Your task to perform on an android device: Show the shopping cart on newegg.com. Add "razer blade" to the cart on newegg.com Image 0: 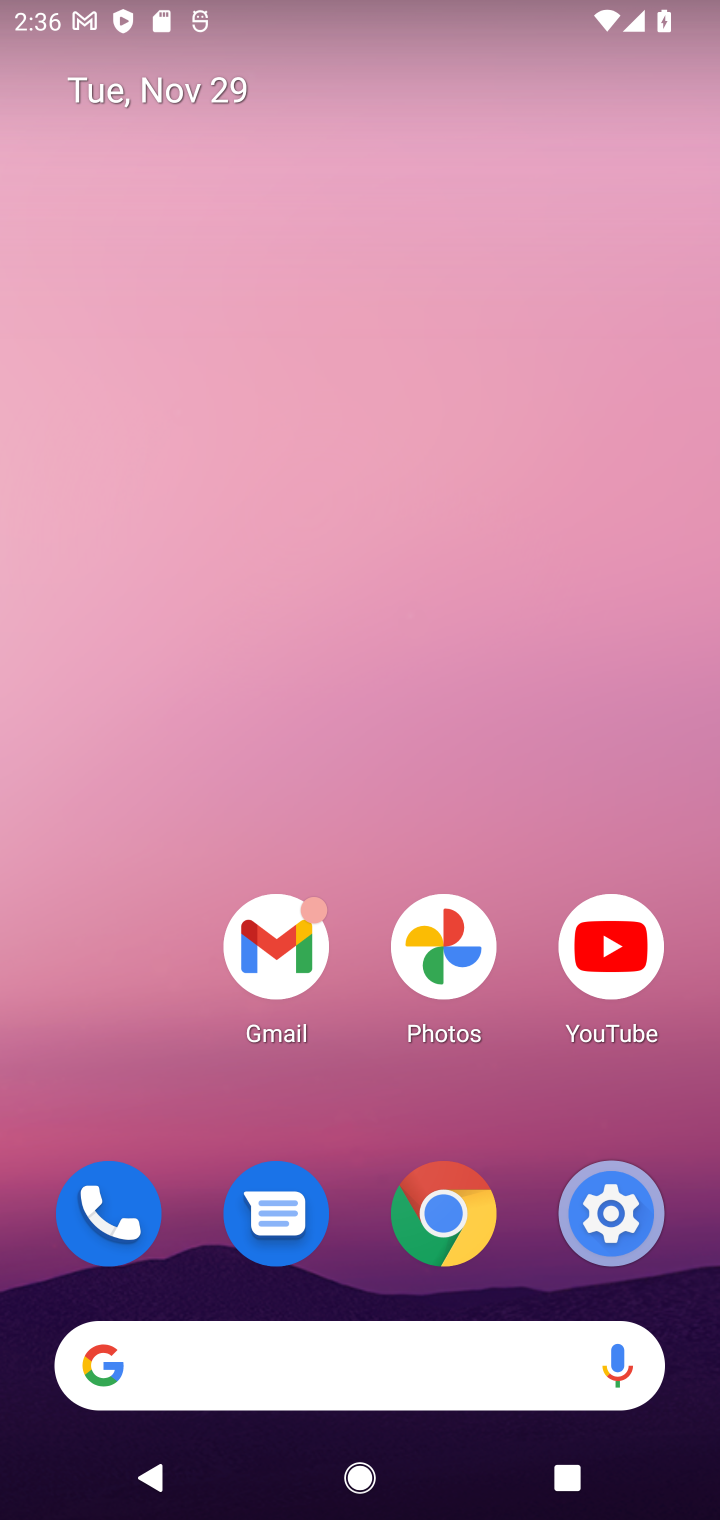
Step 0: click (262, 1362)
Your task to perform on an android device: Show the shopping cart on newegg.com. Add "razer blade" to the cart on newegg.com Image 1: 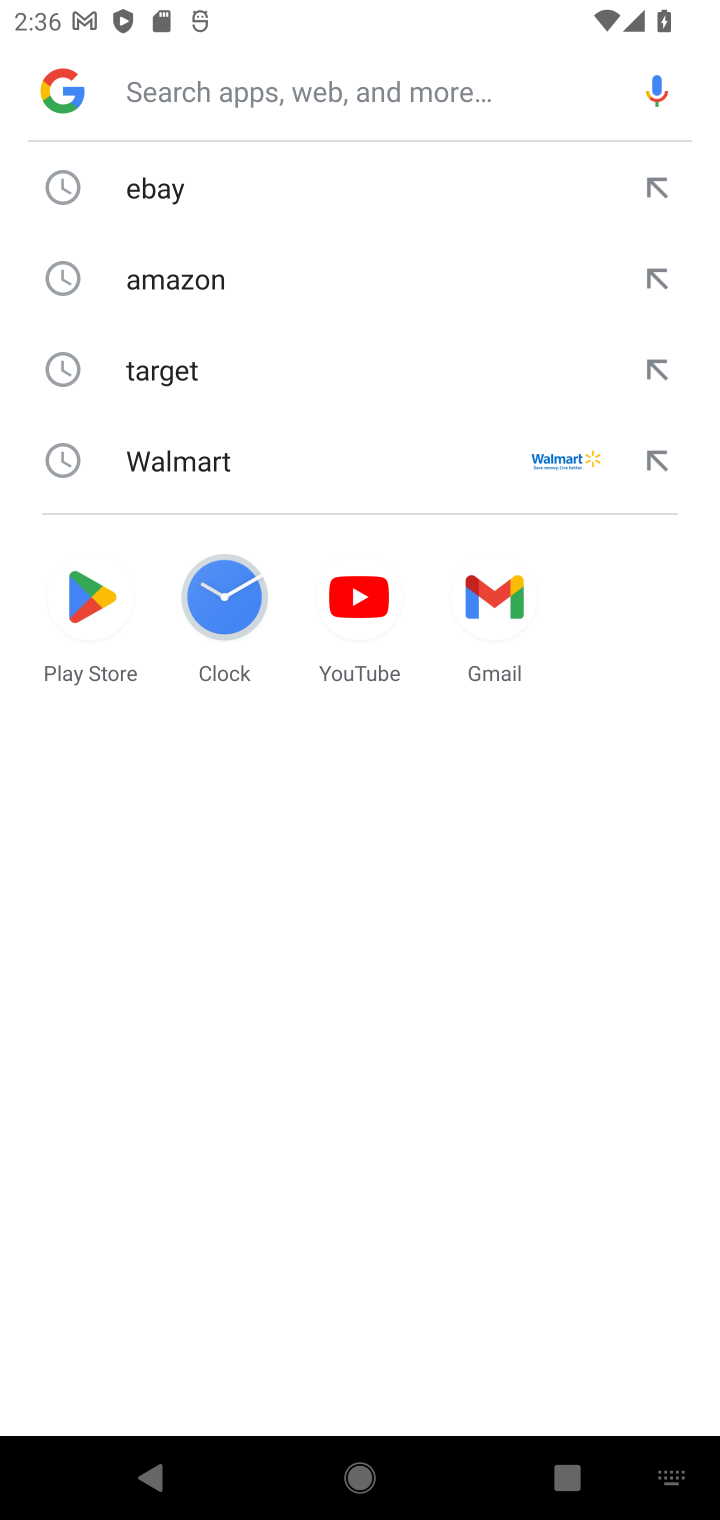
Step 1: press home button
Your task to perform on an android device: Show the shopping cart on newegg.com. Add "razer blade" to the cart on newegg.com Image 2: 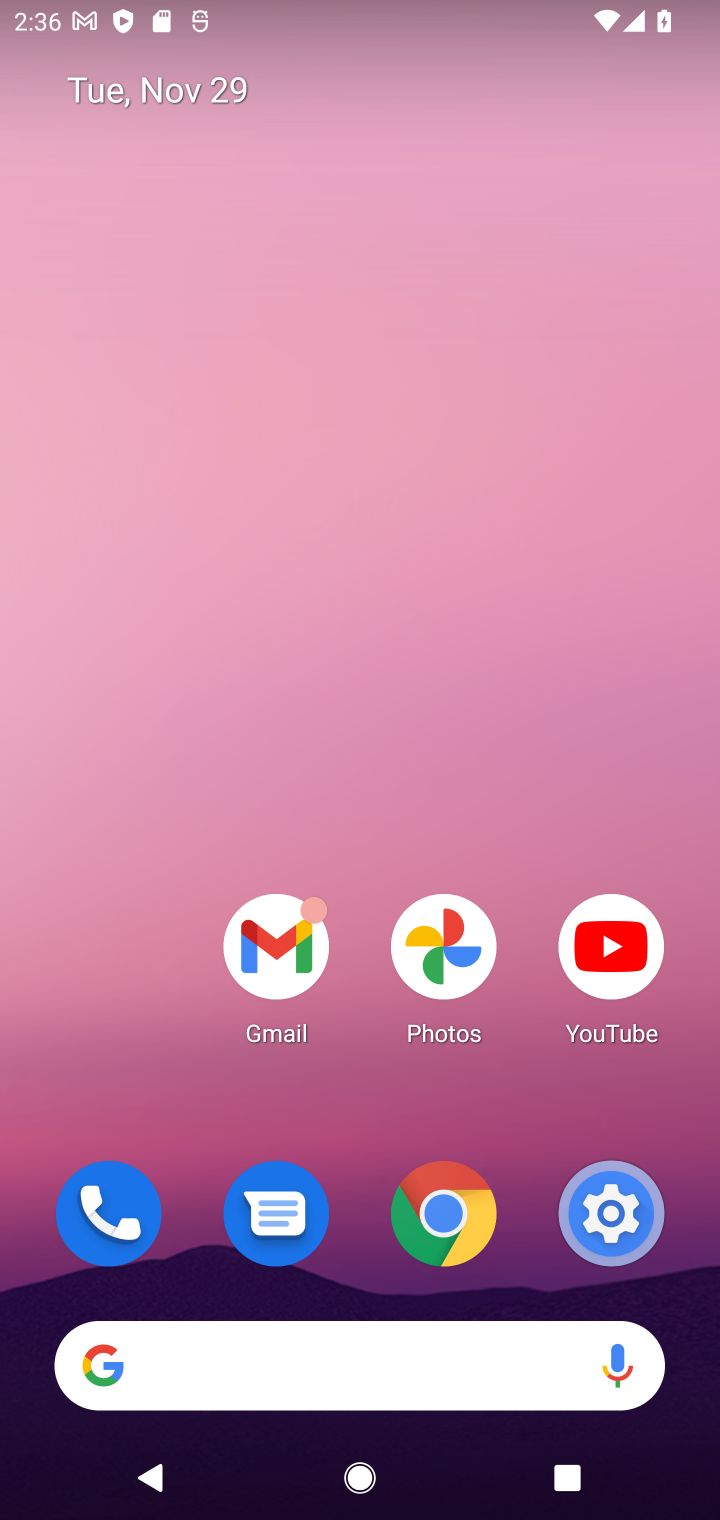
Step 2: drag from (341, 1289) to (336, 757)
Your task to perform on an android device: Show the shopping cart on newegg.com. Add "razer blade" to the cart on newegg.com Image 3: 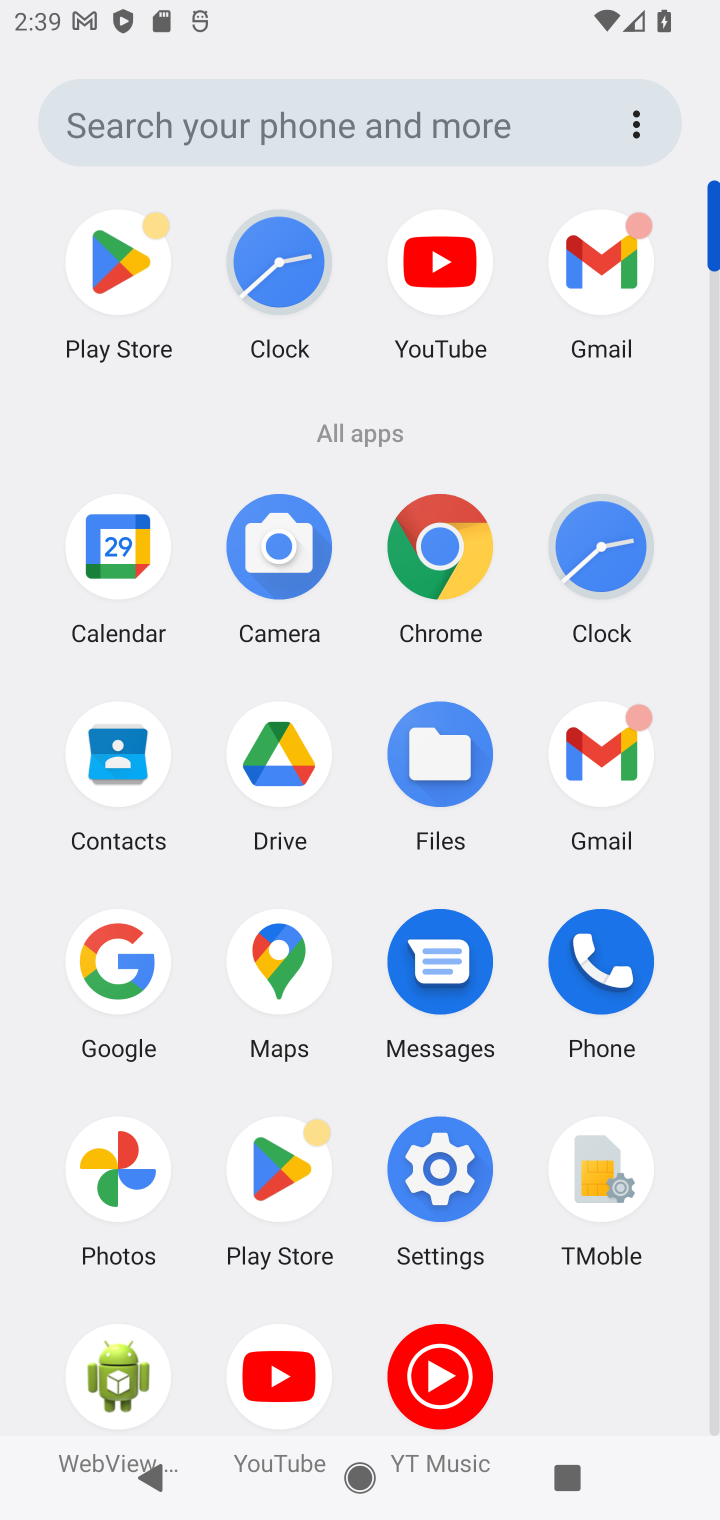
Step 3: click (91, 952)
Your task to perform on an android device: Show the shopping cart on newegg.com. Add "razer blade" to the cart on newegg.com Image 4: 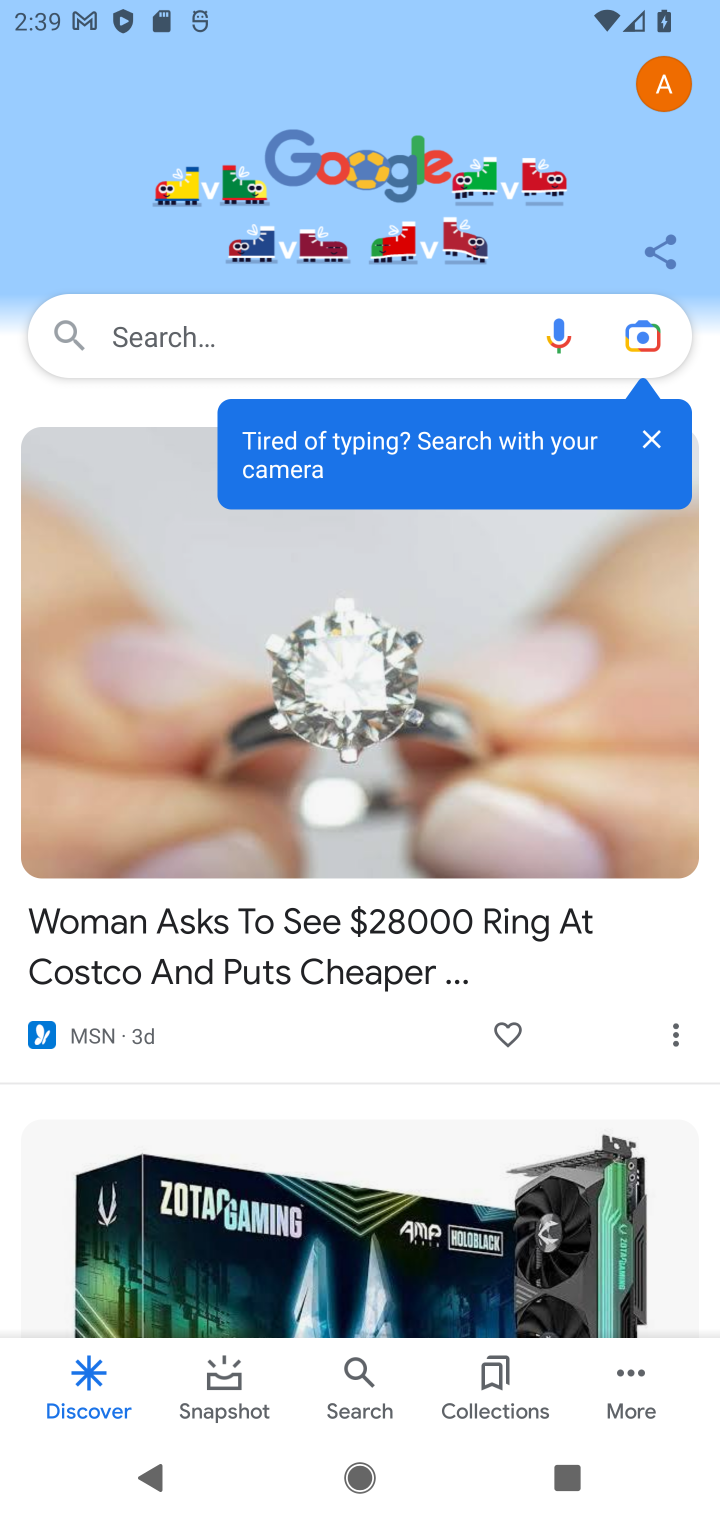
Step 4: click (319, 346)
Your task to perform on an android device: Show the shopping cart on newegg.com. Add "razer blade" to the cart on newegg.com Image 5: 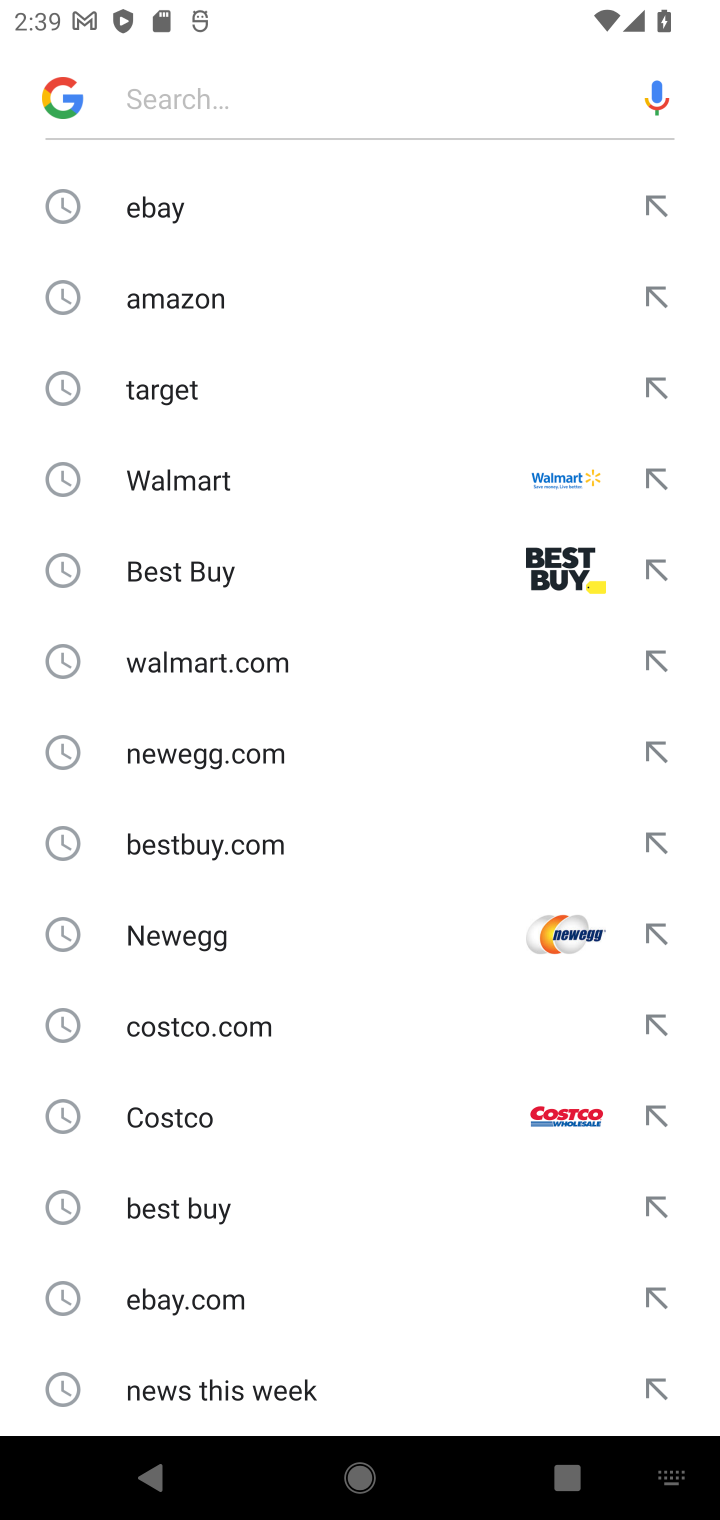
Step 5: type "newegg.com"
Your task to perform on an android device: Show the shopping cart on newegg.com. Add "razer blade" to the cart on newegg.com Image 6: 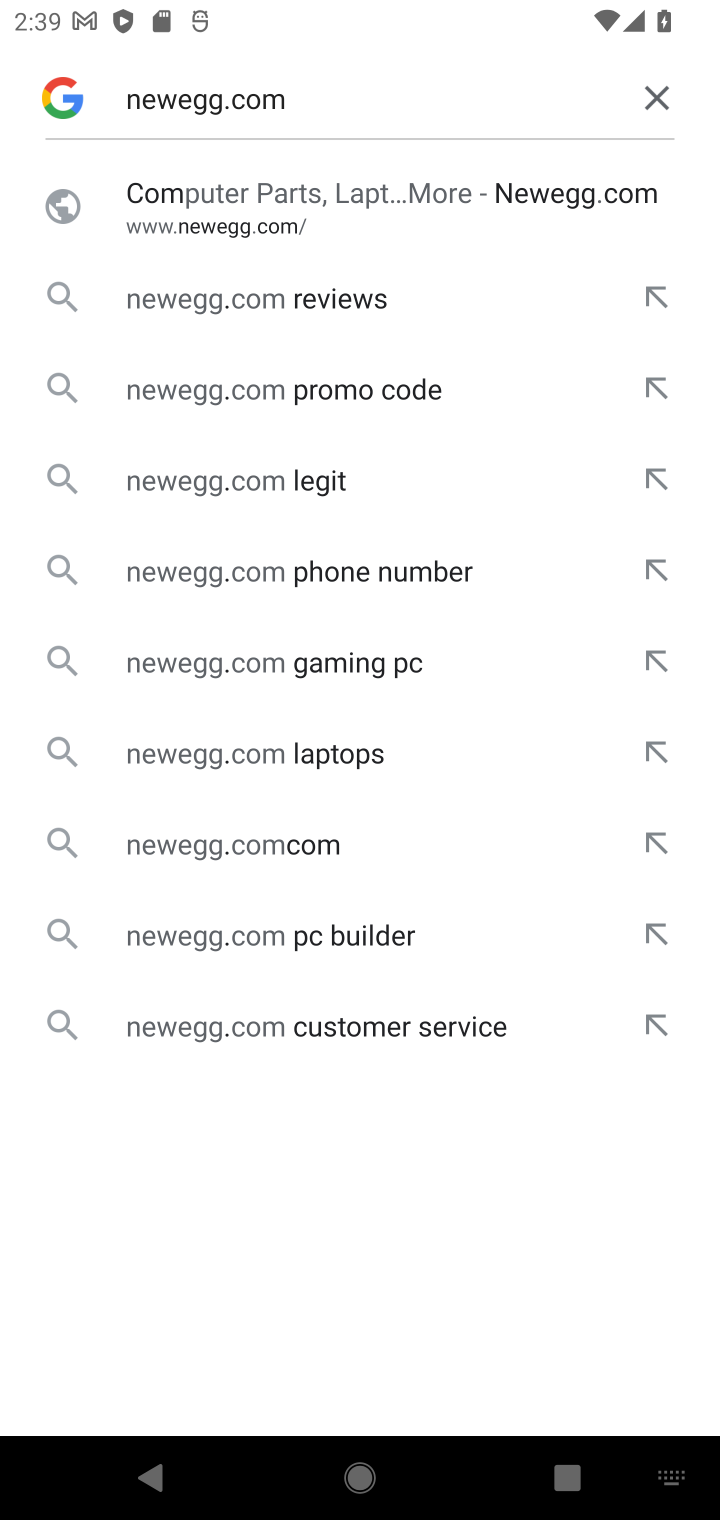
Step 6: click (390, 200)
Your task to perform on an android device: Show the shopping cart on newegg.com. Add "razer blade" to the cart on newegg.com Image 7: 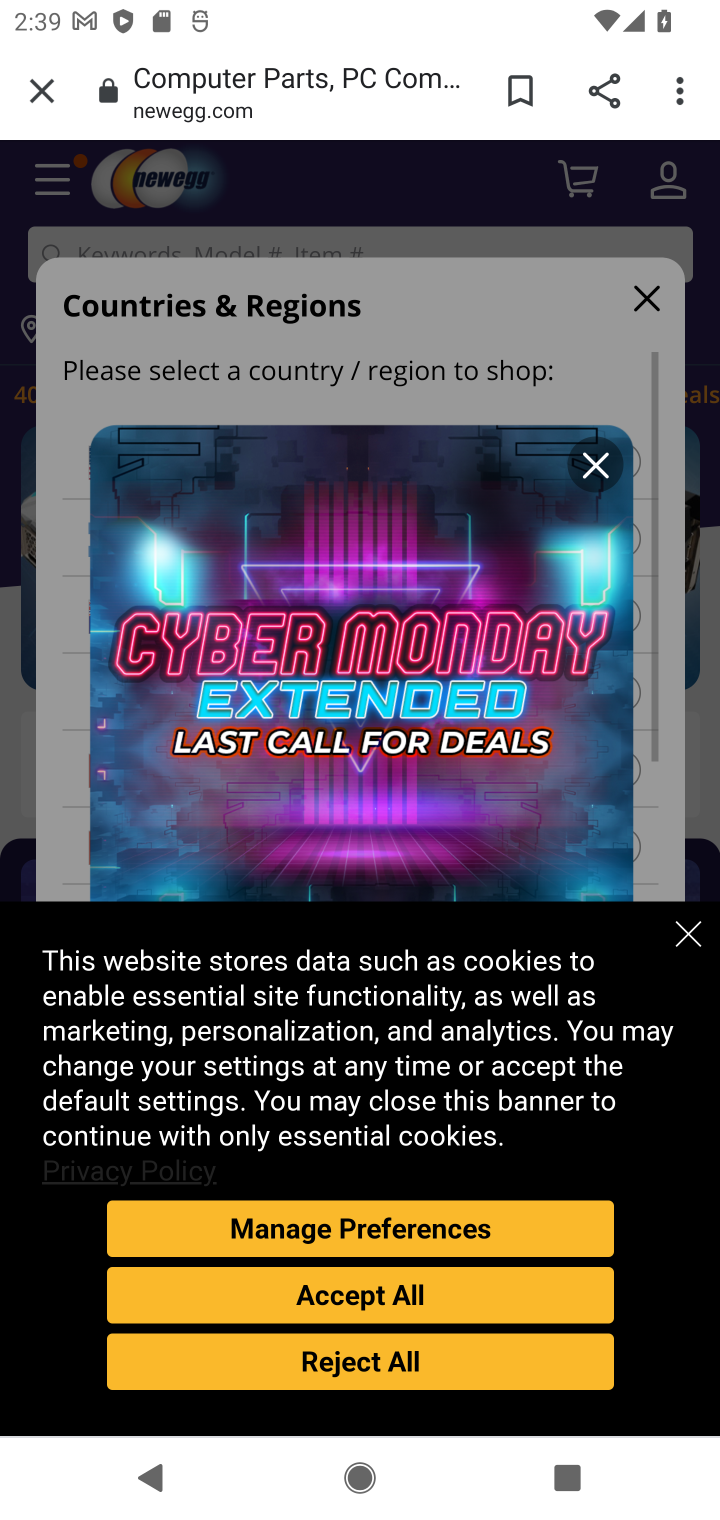
Step 7: click (672, 931)
Your task to perform on an android device: Show the shopping cart on newegg.com. Add "razer blade" to the cart on newegg.com Image 8: 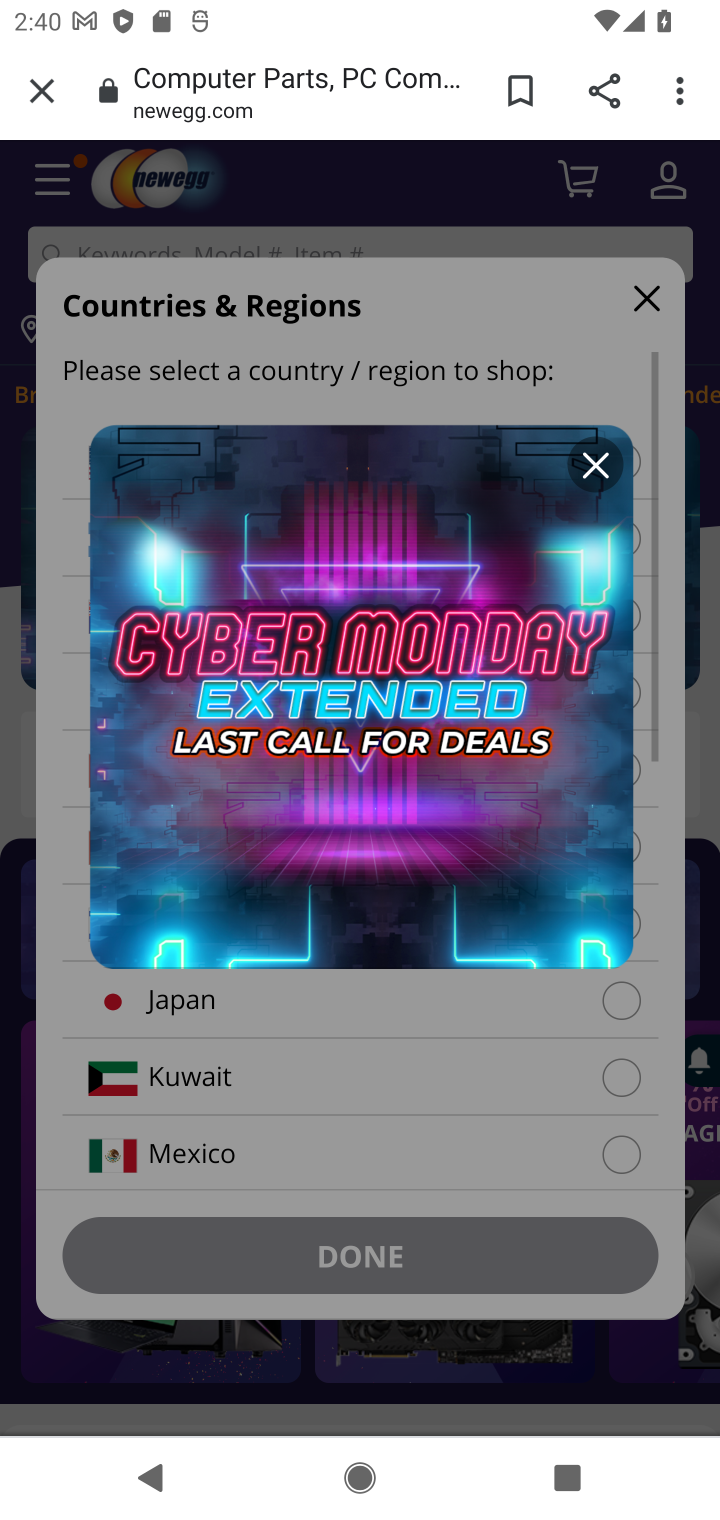
Step 8: click (596, 464)
Your task to perform on an android device: Show the shopping cart on newegg.com. Add "razer blade" to the cart on newegg.com Image 9: 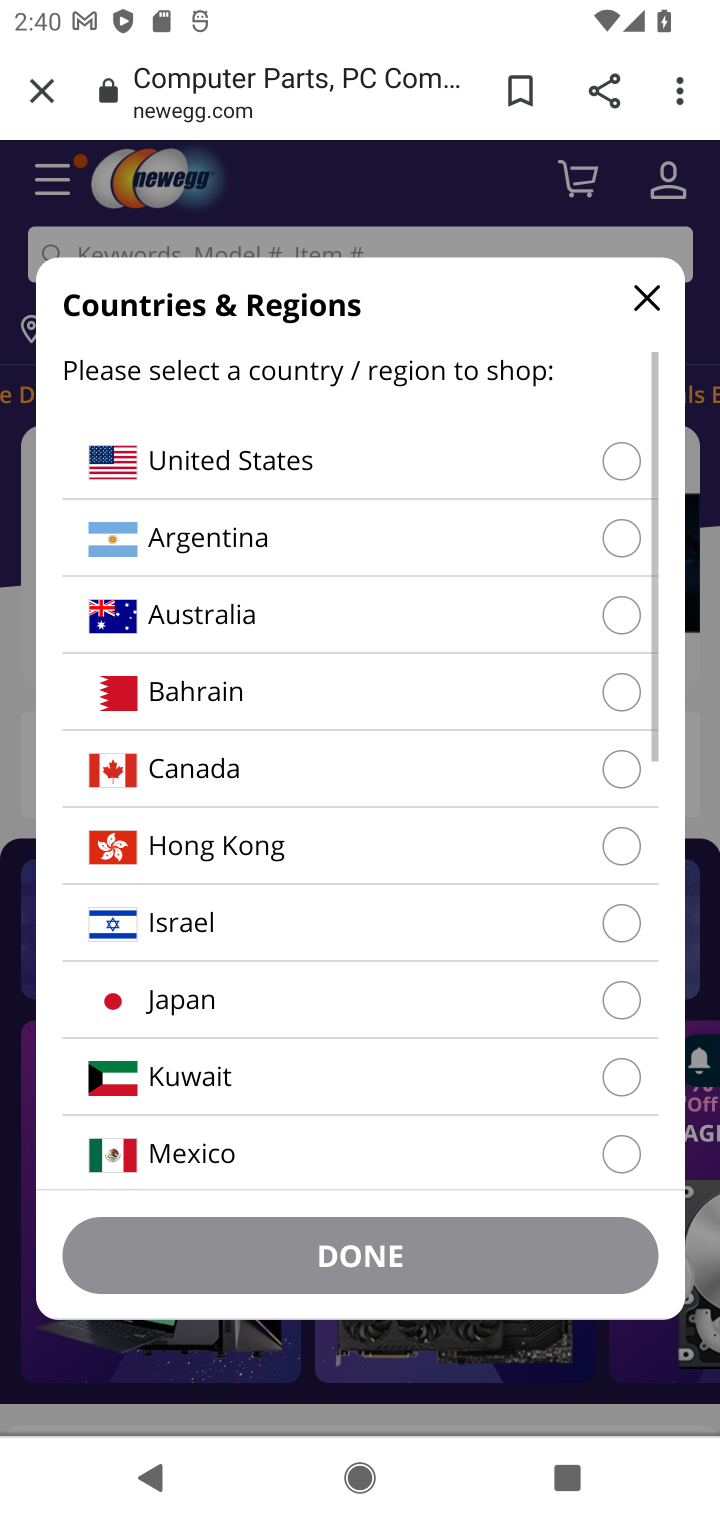
Step 9: click (627, 464)
Your task to perform on an android device: Show the shopping cart on newegg.com. Add "razer blade" to the cart on newegg.com Image 10: 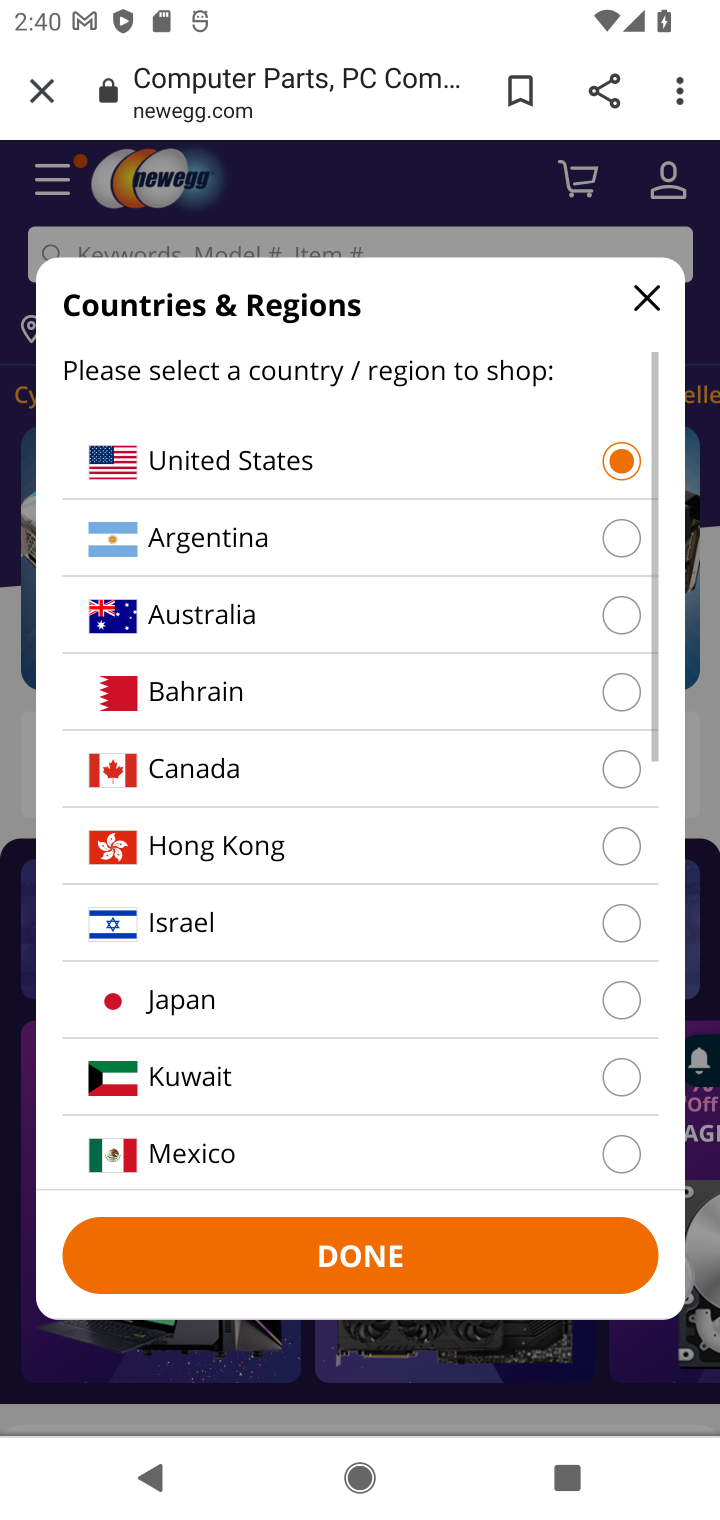
Step 10: click (386, 1261)
Your task to perform on an android device: Show the shopping cart on newegg.com. Add "razer blade" to the cart on newegg.com Image 11: 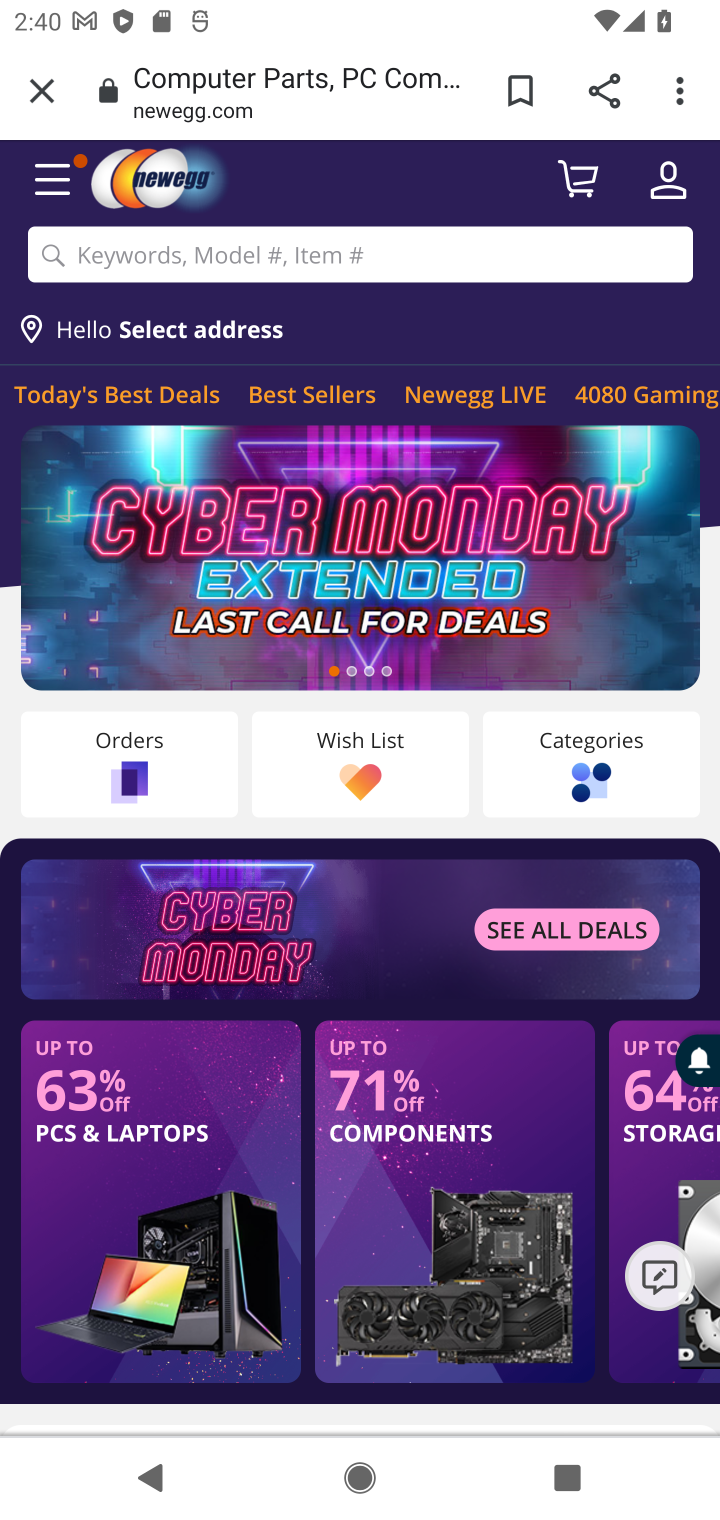
Step 11: click (344, 1122)
Your task to perform on an android device: Show the shopping cart on newegg.com. Add "razer blade" to the cart on newegg.com Image 12: 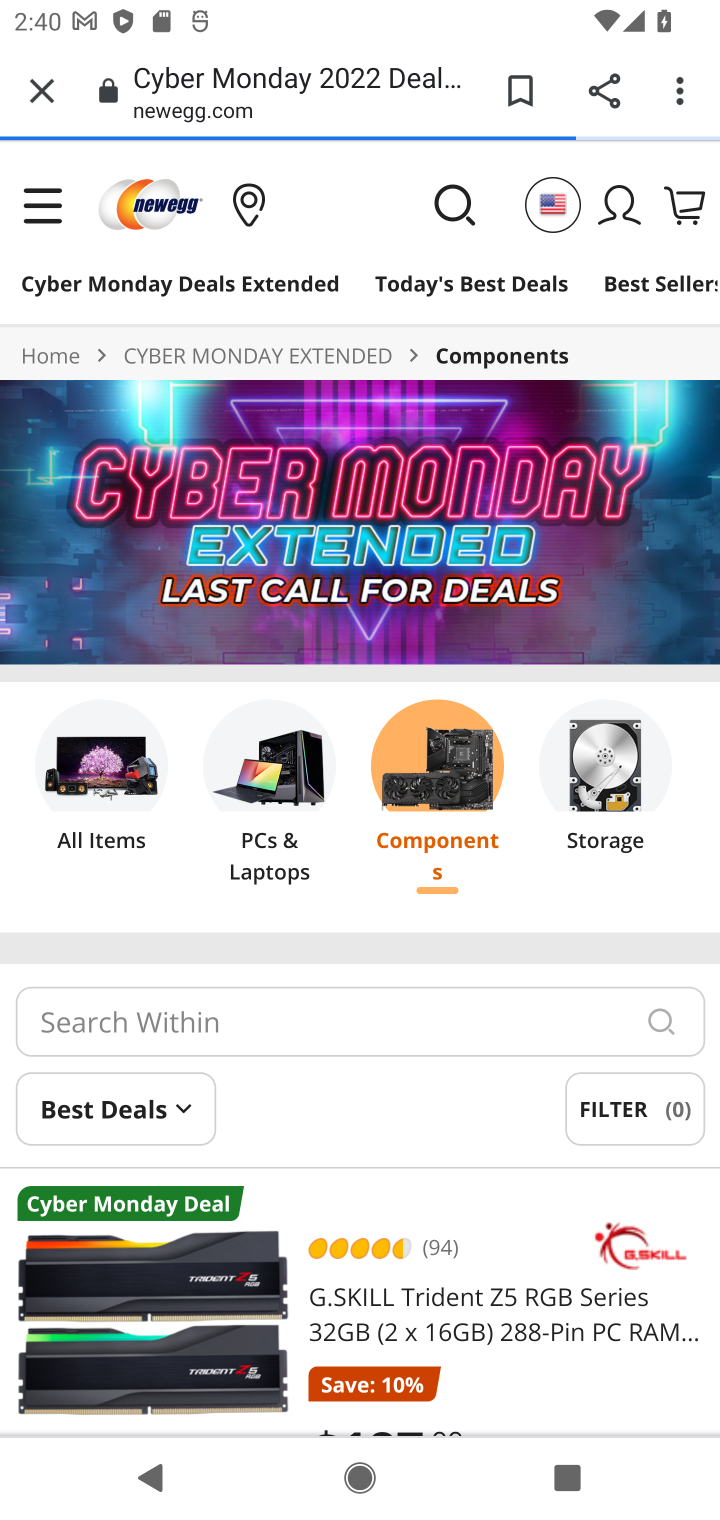
Step 12: drag from (245, 1260) to (364, 529)
Your task to perform on an android device: Show the shopping cart on newegg.com. Add "razer blade" to the cart on newegg.com Image 13: 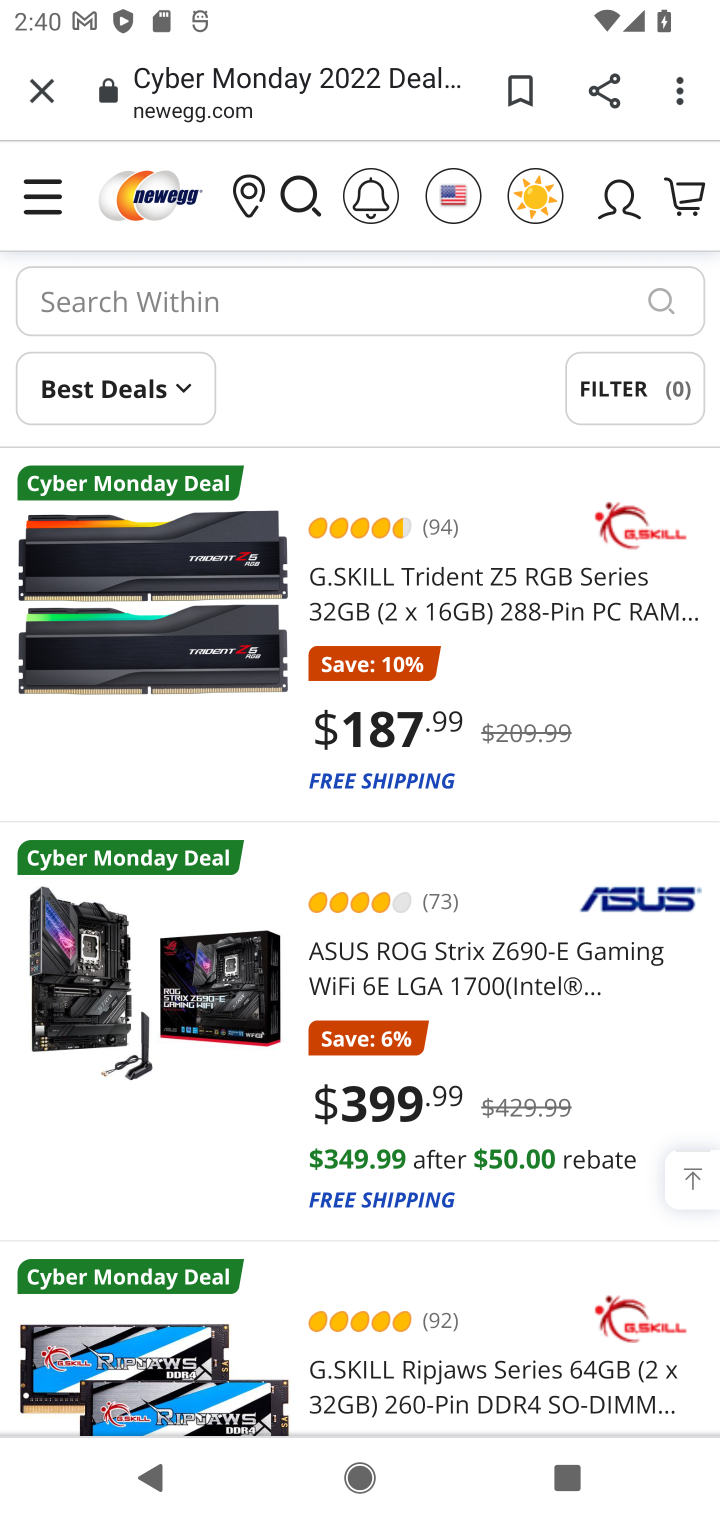
Step 13: drag from (329, 613) to (425, 1034)
Your task to perform on an android device: Show the shopping cart on newegg.com. Add "razer blade" to the cart on newegg.com Image 14: 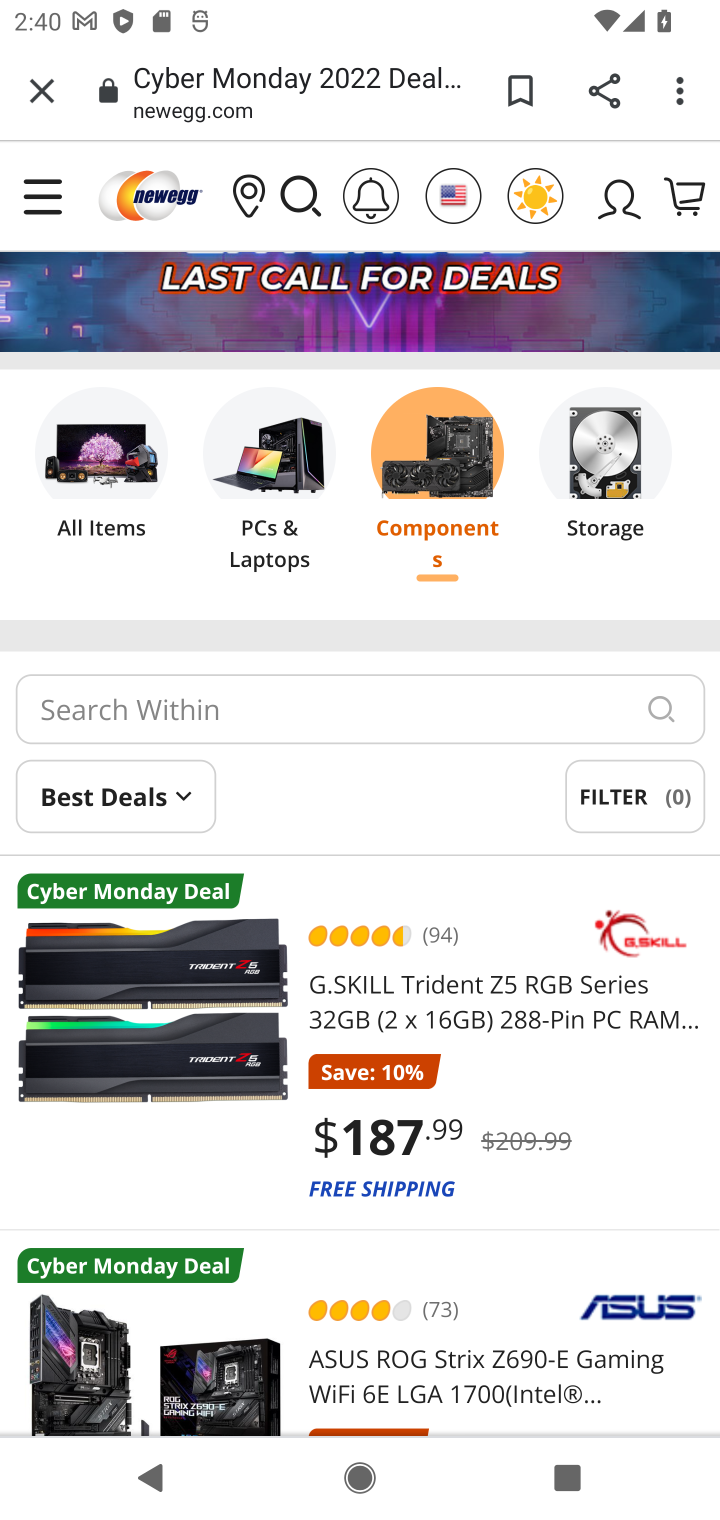
Step 14: click (506, 1012)
Your task to perform on an android device: Show the shopping cart on newegg.com. Add "razer blade" to the cart on newegg.com Image 15: 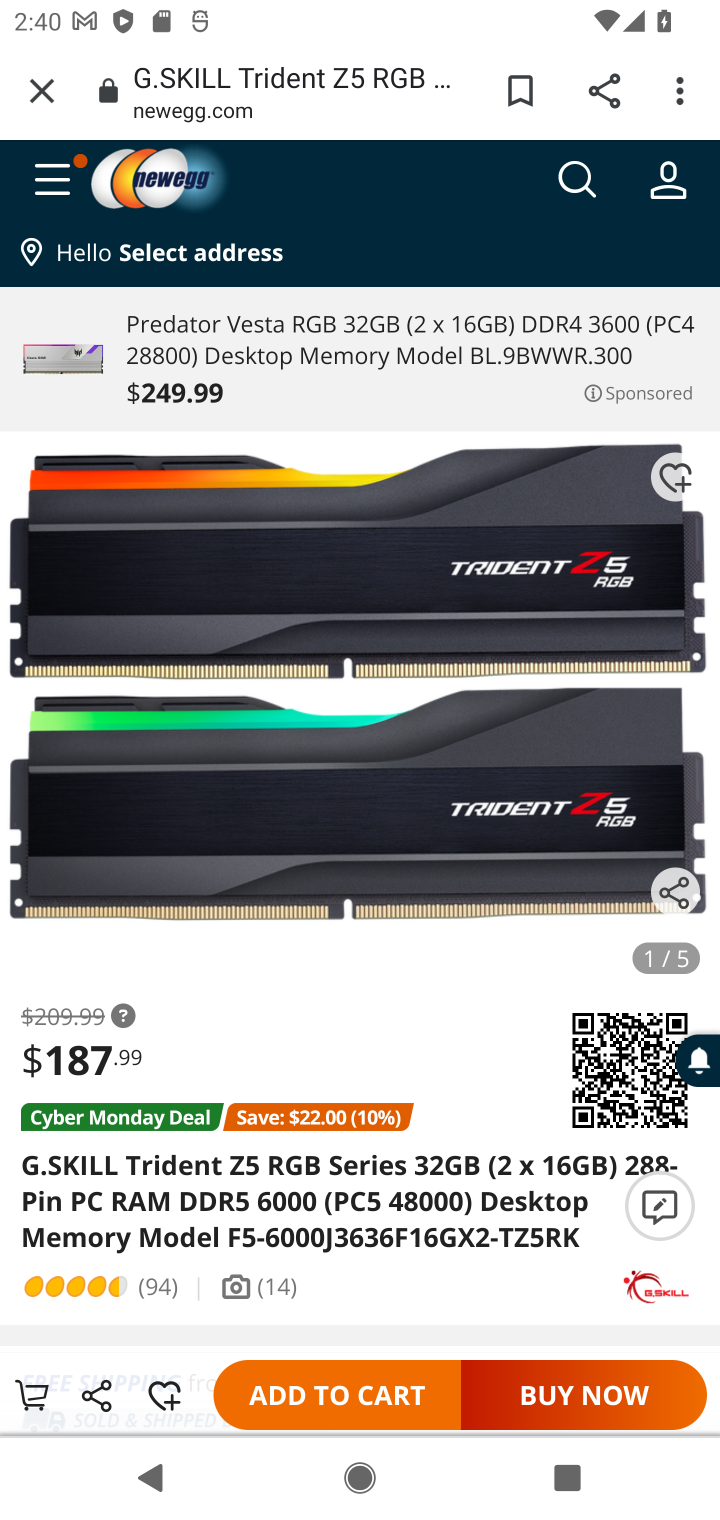
Step 15: click (351, 1377)
Your task to perform on an android device: Show the shopping cart on newegg.com. Add "razer blade" to the cart on newegg.com Image 16: 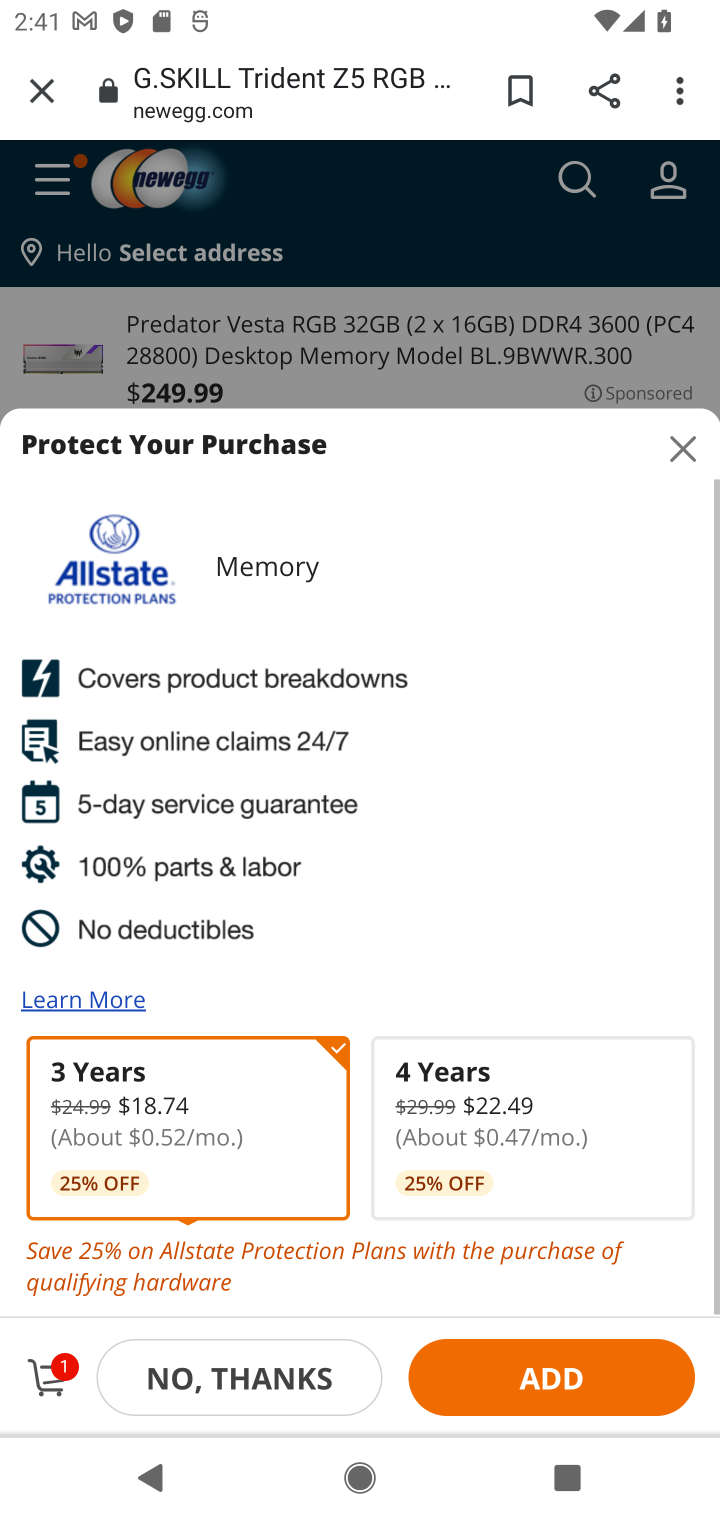
Step 16: click (50, 1377)
Your task to perform on an android device: Show the shopping cart on newegg.com. Add "razer blade" to the cart on newegg.com Image 17: 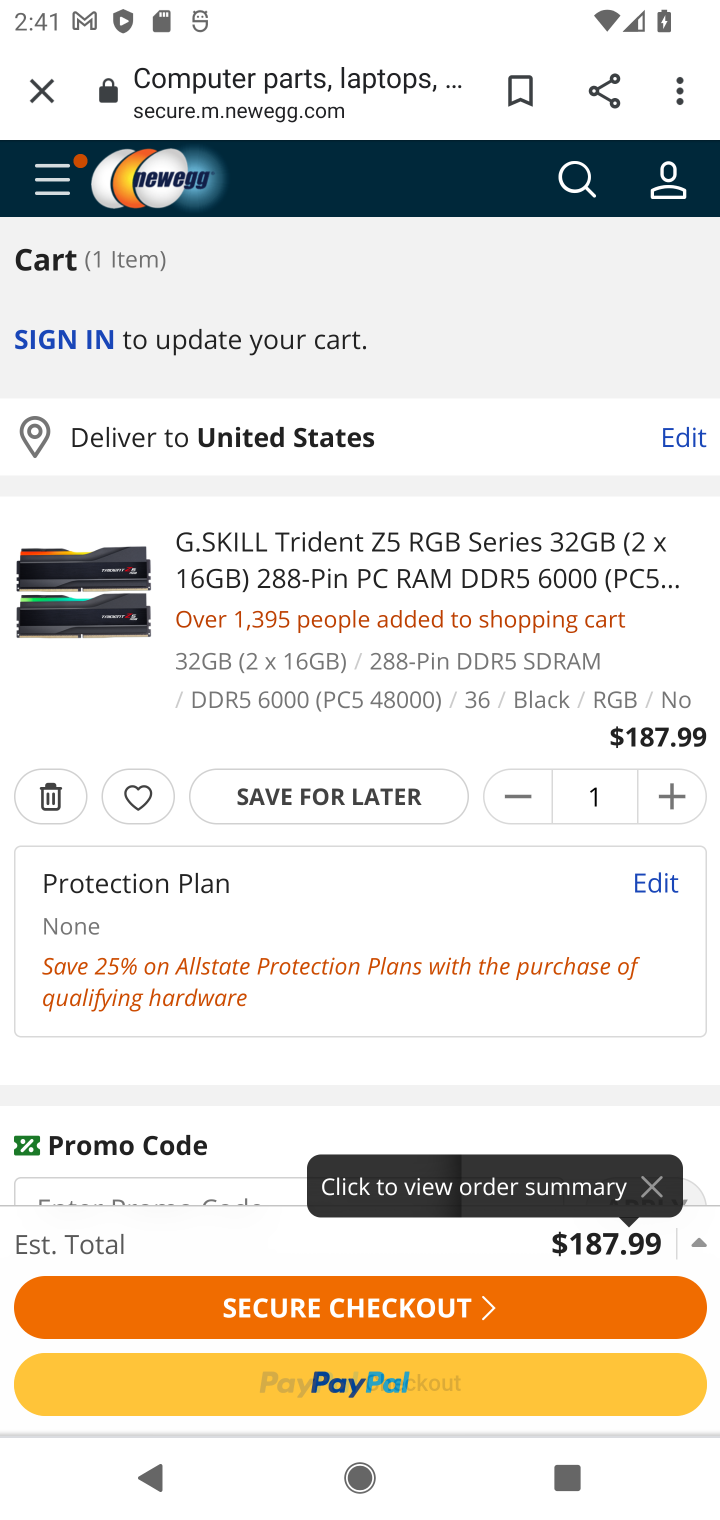
Step 17: task complete